Your task to perform on an android device: delete location history Image 0: 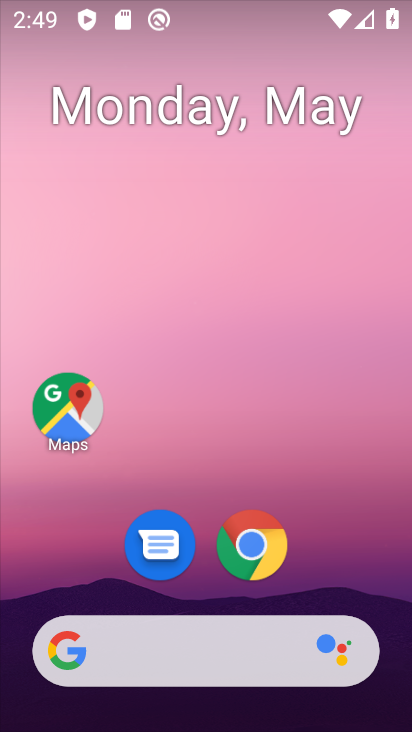
Step 0: drag from (141, 708) to (191, 1)
Your task to perform on an android device: delete location history Image 1: 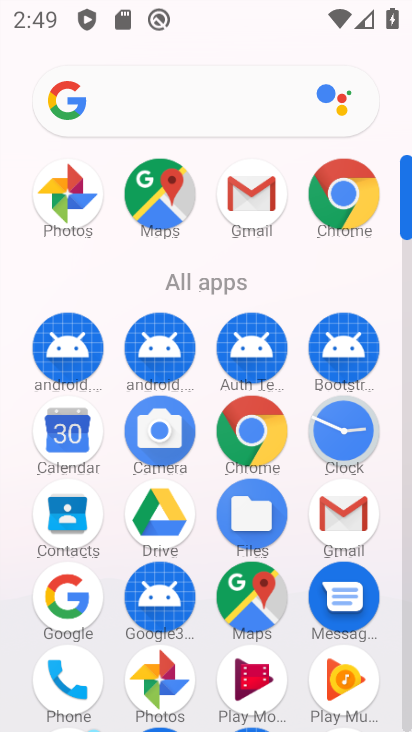
Step 1: drag from (108, 595) to (118, 267)
Your task to perform on an android device: delete location history Image 2: 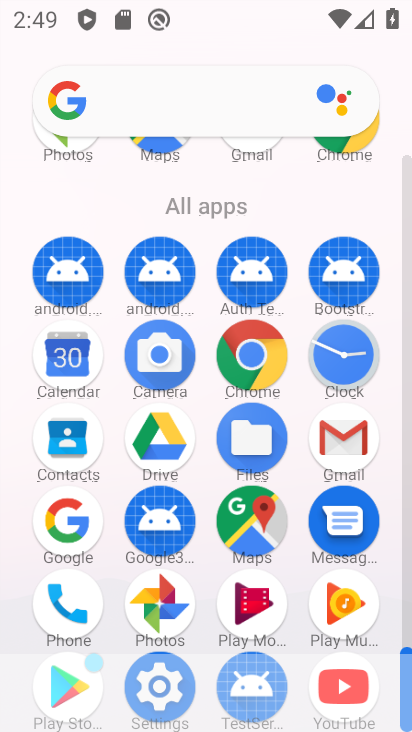
Step 2: click (138, 691)
Your task to perform on an android device: delete location history Image 3: 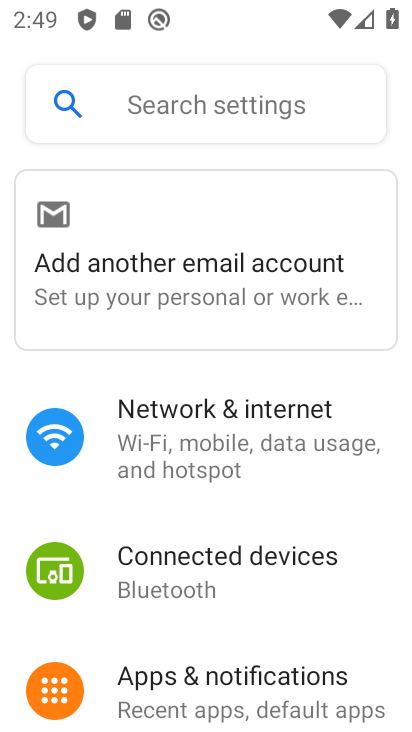
Step 3: drag from (221, 622) to (254, 196)
Your task to perform on an android device: delete location history Image 4: 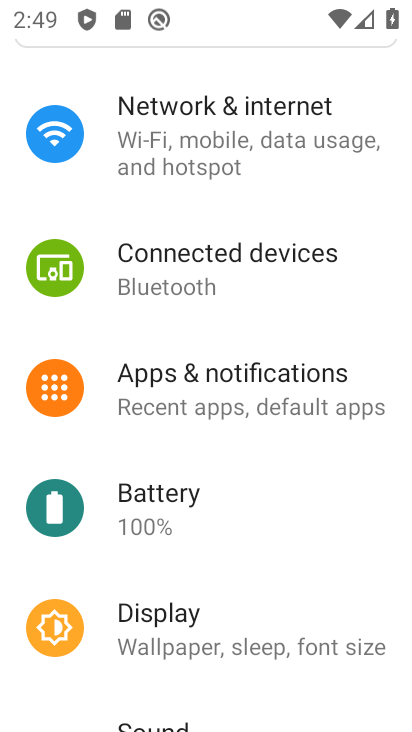
Step 4: drag from (230, 666) to (295, 301)
Your task to perform on an android device: delete location history Image 5: 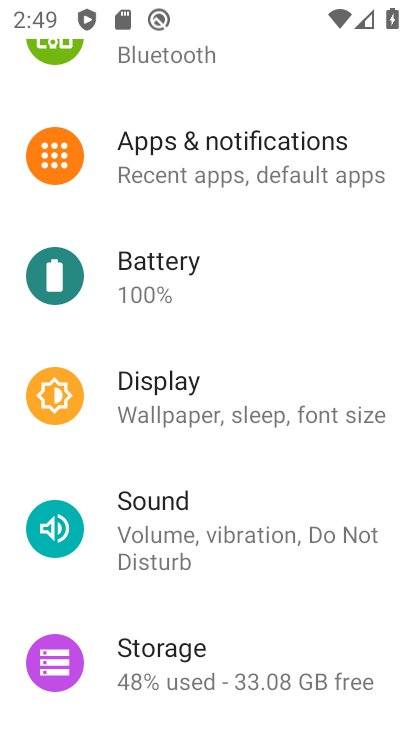
Step 5: drag from (197, 626) to (181, 228)
Your task to perform on an android device: delete location history Image 6: 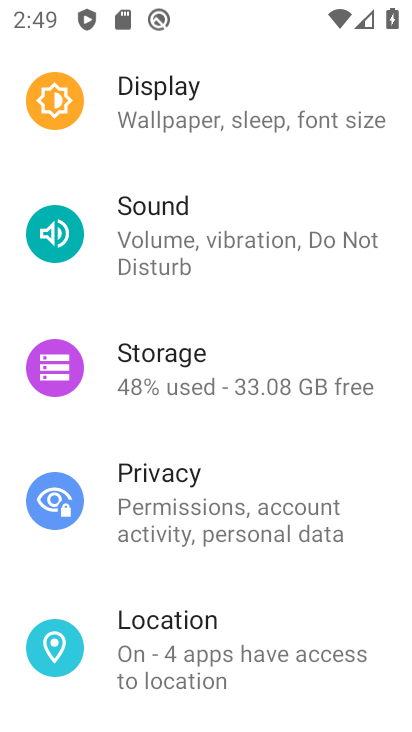
Step 6: click (174, 670)
Your task to perform on an android device: delete location history Image 7: 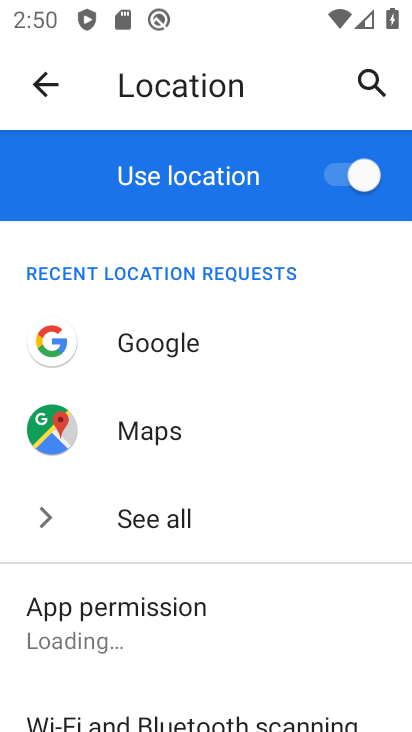
Step 7: drag from (259, 658) to (257, 325)
Your task to perform on an android device: delete location history Image 8: 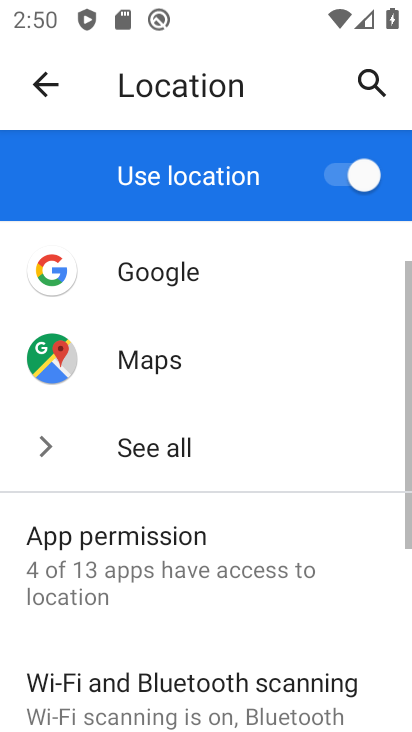
Step 8: drag from (252, 645) to (271, 294)
Your task to perform on an android device: delete location history Image 9: 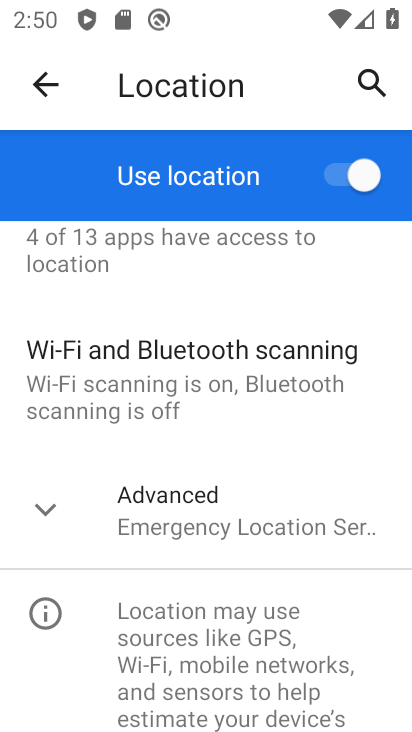
Step 9: click (220, 518)
Your task to perform on an android device: delete location history Image 10: 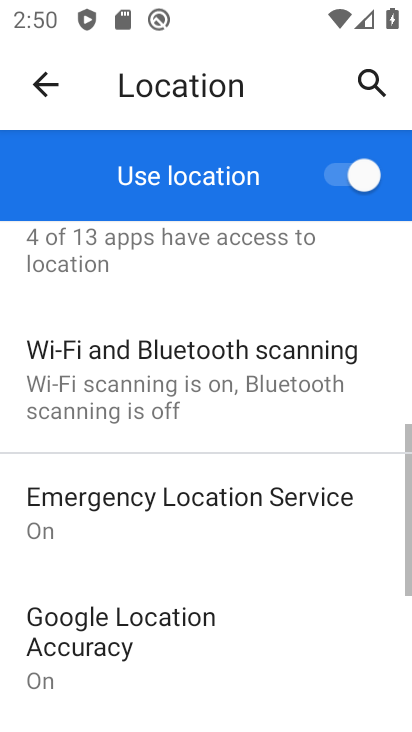
Step 10: drag from (269, 665) to (268, 363)
Your task to perform on an android device: delete location history Image 11: 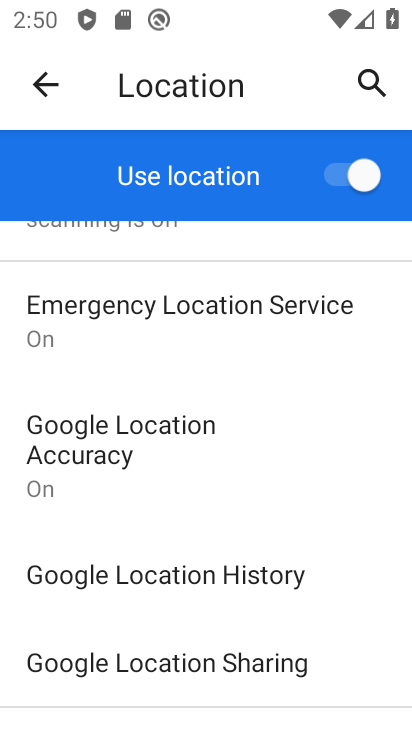
Step 11: click (213, 586)
Your task to perform on an android device: delete location history Image 12: 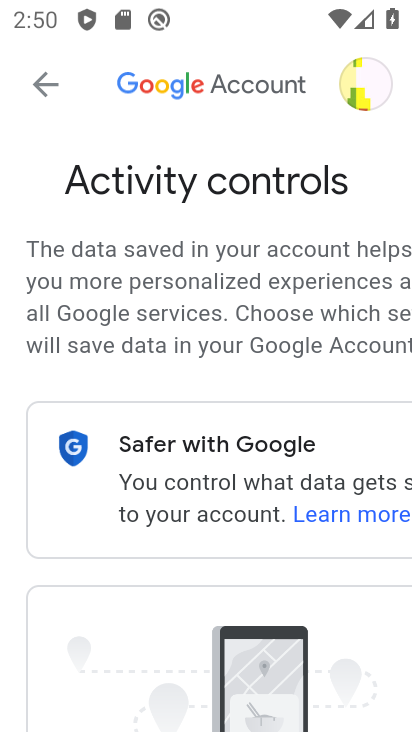
Step 12: drag from (286, 591) to (283, 202)
Your task to perform on an android device: delete location history Image 13: 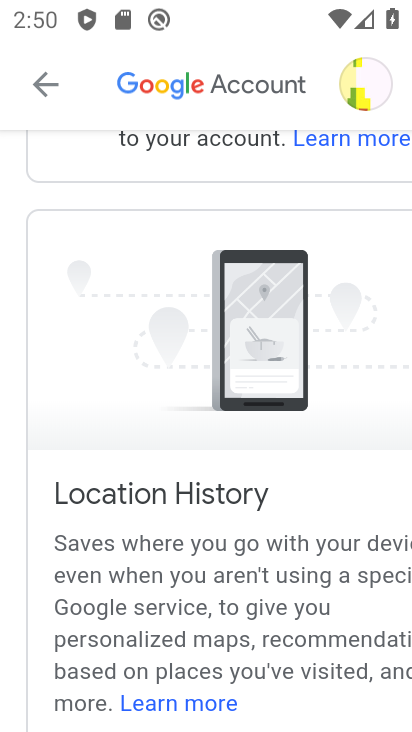
Step 13: drag from (306, 609) to (314, 297)
Your task to perform on an android device: delete location history Image 14: 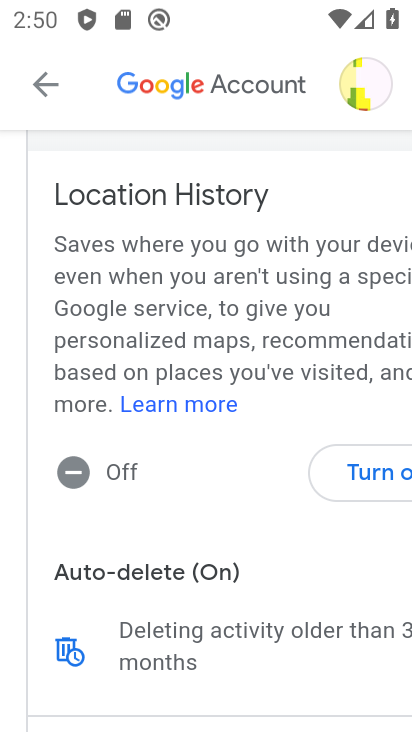
Step 14: click (258, 640)
Your task to perform on an android device: delete location history Image 15: 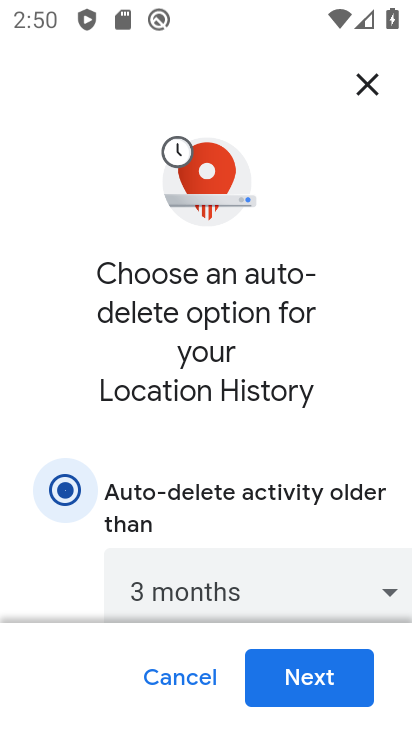
Step 15: click (338, 688)
Your task to perform on an android device: delete location history Image 16: 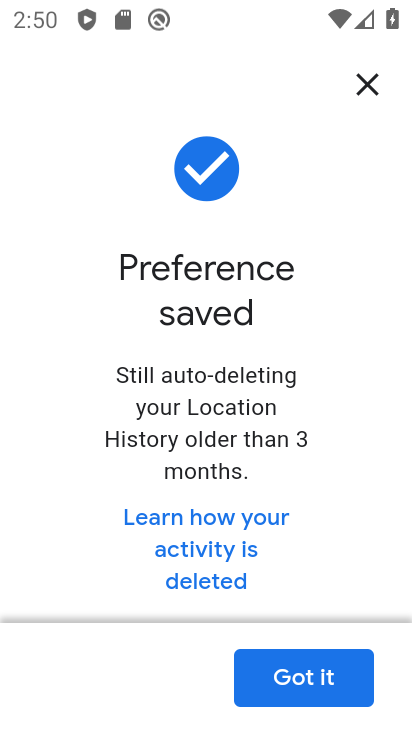
Step 16: click (288, 694)
Your task to perform on an android device: delete location history Image 17: 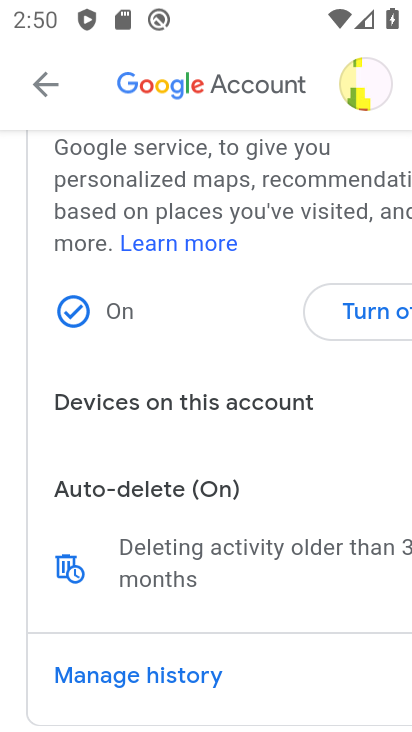
Step 17: task complete